Your task to perform on an android device: Open Maps and search for coffee Image 0: 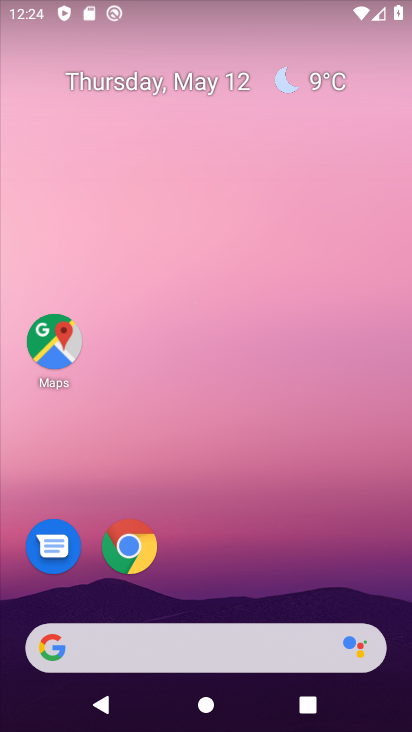
Step 0: click (60, 362)
Your task to perform on an android device: Open Maps and search for coffee Image 1: 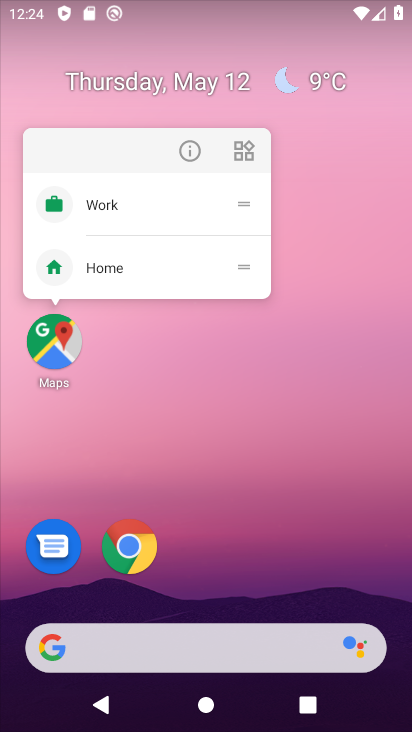
Step 1: click (59, 351)
Your task to perform on an android device: Open Maps and search for coffee Image 2: 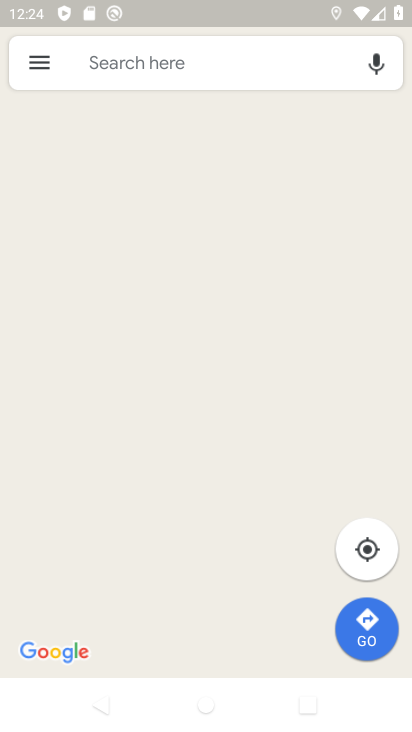
Step 2: click (224, 57)
Your task to perform on an android device: Open Maps and search for coffee Image 3: 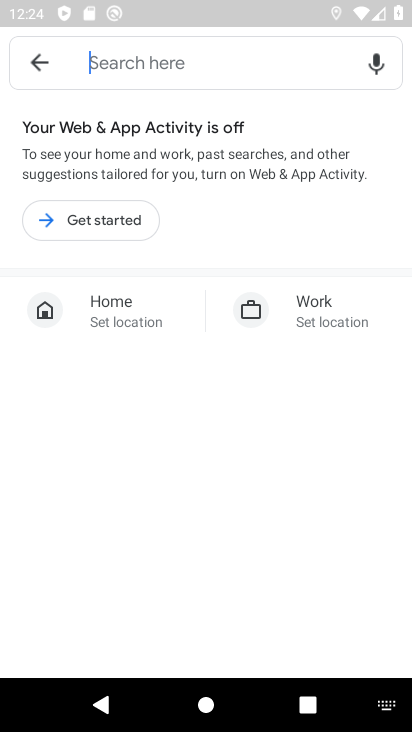
Step 3: type "coffee"
Your task to perform on an android device: Open Maps and search for coffee Image 4: 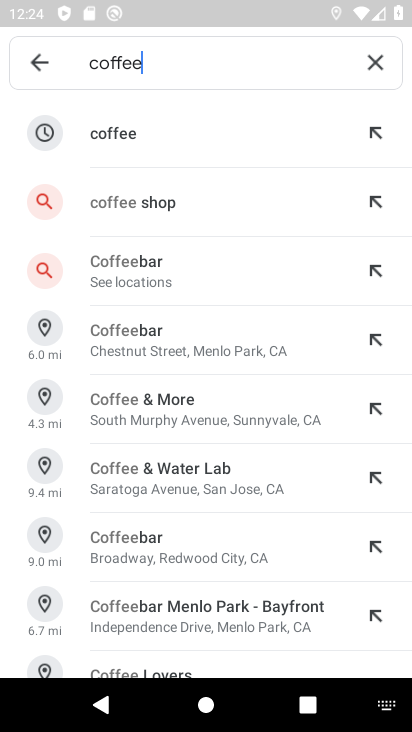
Step 4: click (138, 132)
Your task to perform on an android device: Open Maps and search for coffee Image 5: 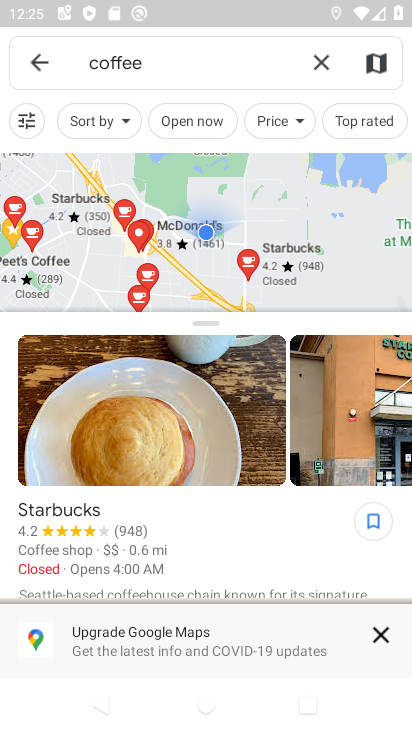
Step 5: task complete